Your task to perform on an android device: empty trash in google photos Image 0: 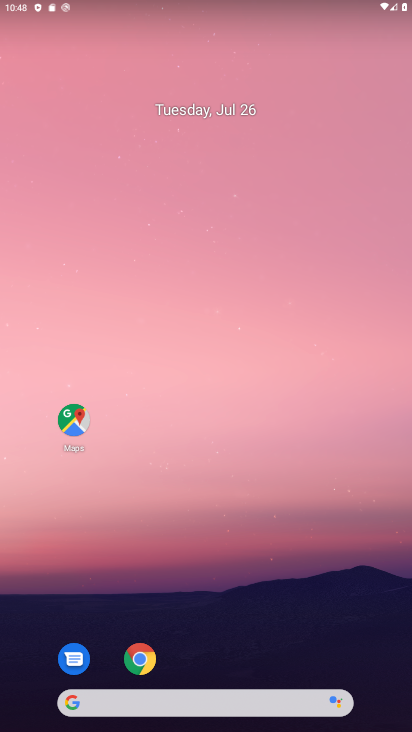
Step 0: drag from (6, 706) to (162, 205)
Your task to perform on an android device: empty trash in google photos Image 1: 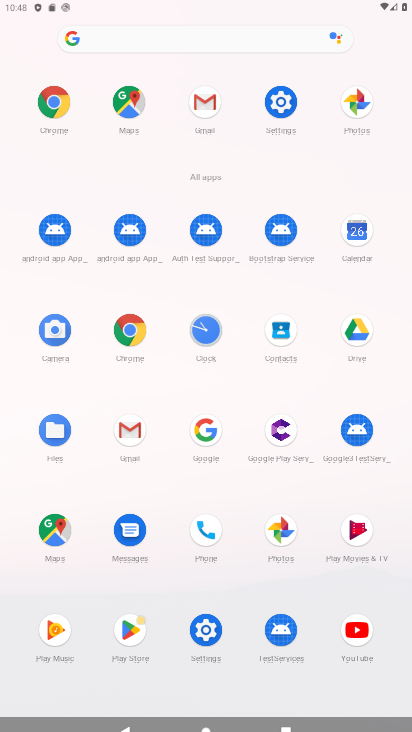
Step 1: click (354, 106)
Your task to perform on an android device: empty trash in google photos Image 2: 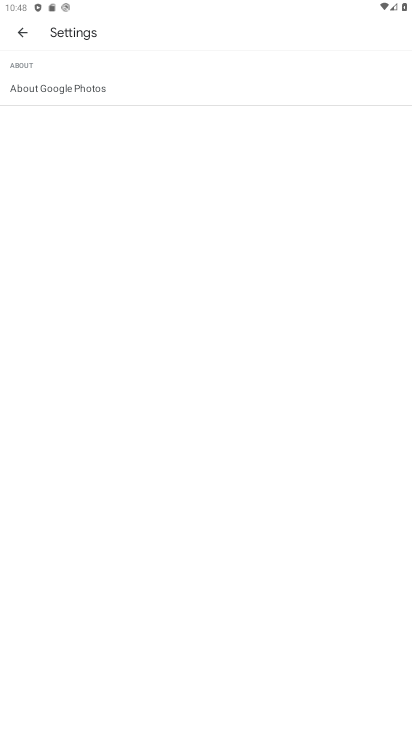
Step 2: click (17, 36)
Your task to perform on an android device: empty trash in google photos Image 3: 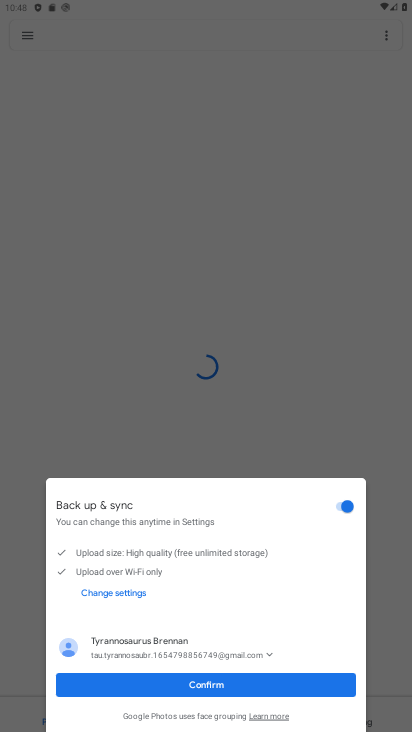
Step 3: click (218, 689)
Your task to perform on an android device: empty trash in google photos Image 4: 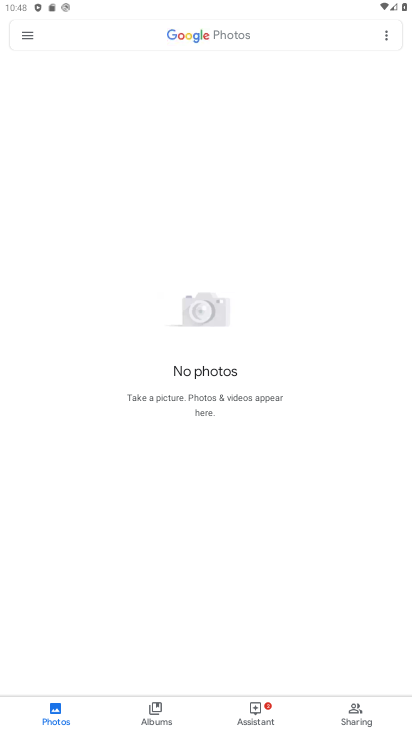
Step 4: click (16, 34)
Your task to perform on an android device: empty trash in google photos Image 5: 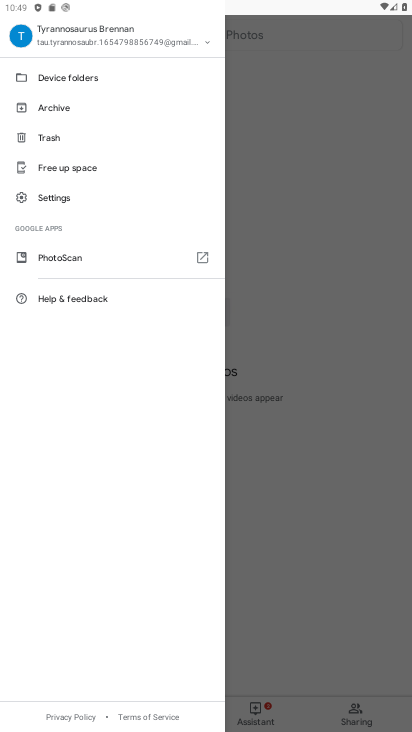
Step 5: click (83, 135)
Your task to perform on an android device: empty trash in google photos Image 6: 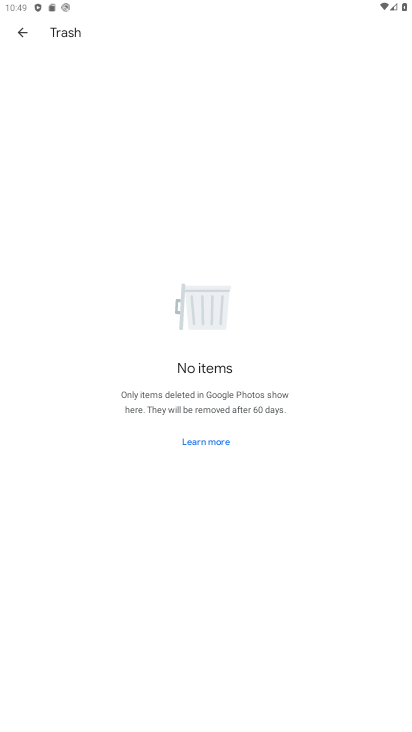
Step 6: task complete